Your task to perform on an android device: turn off wifi Image 0: 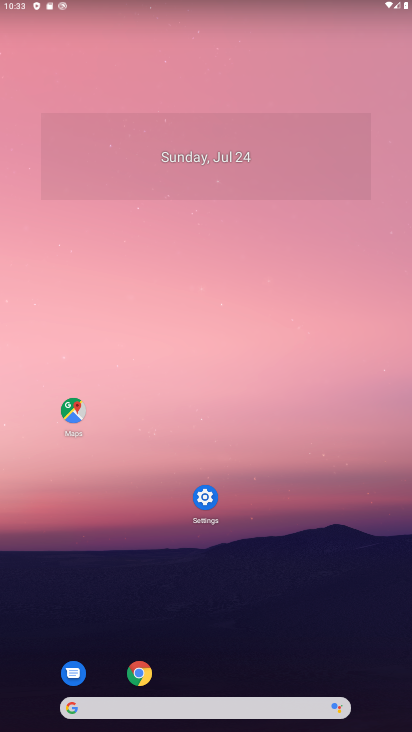
Step 0: drag from (267, 150) to (280, 273)
Your task to perform on an android device: turn off wifi Image 1: 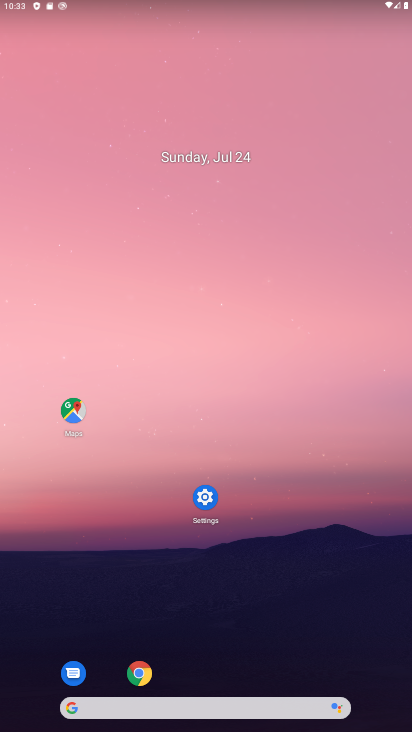
Step 1: drag from (337, 0) to (374, 260)
Your task to perform on an android device: turn off wifi Image 2: 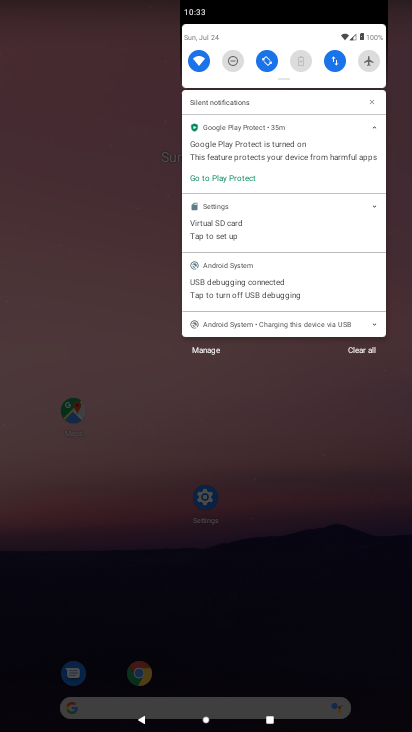
Step 2: click (197, 60)
Your task to perform on an android device: turn off wifi Image 3: 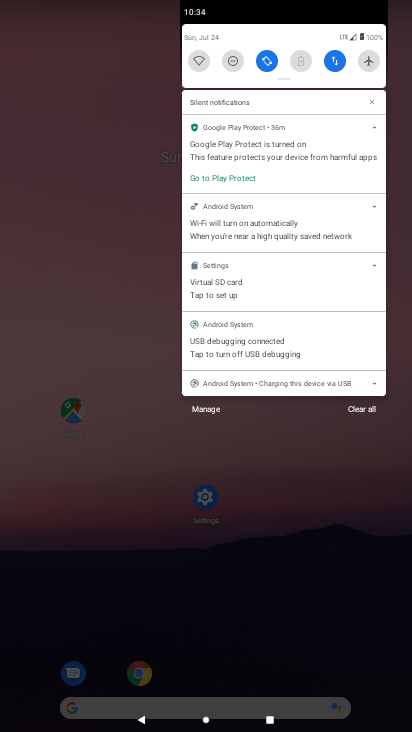
Step 3: click (358, 408)
Your task to perform on an android device: turn off wifi Image 4: 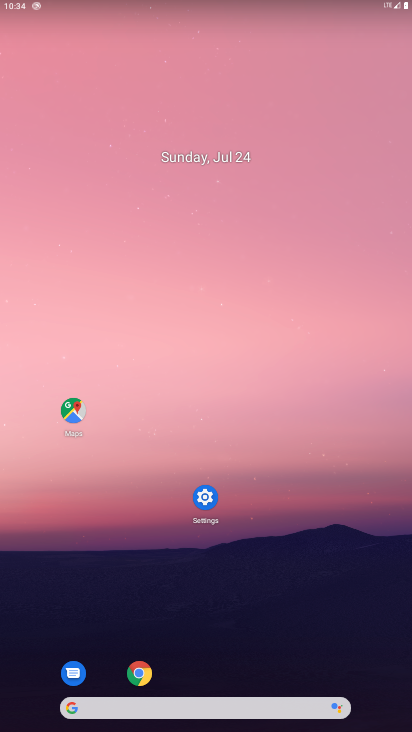
Step 4: task complete